Your task to perform on an android device: Open Google Chrome Image 0: 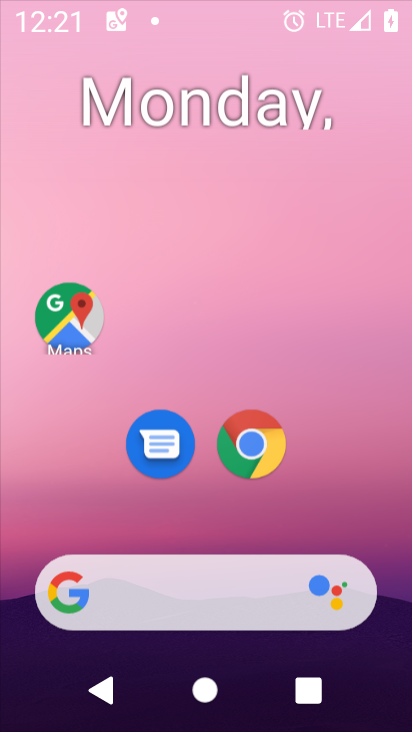
Step 0: click (279, 78)
Your task to perform on an android device: Open Google Chrome Image 1: 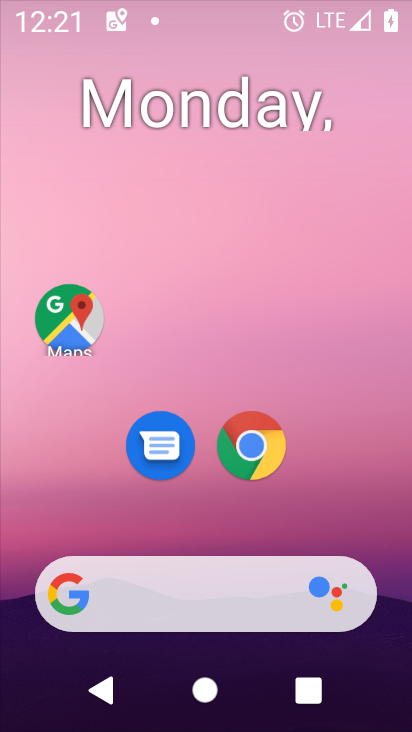
Step 1: drag from (219, 506) to (270, 108)
Your task to perform on an android device: Open Google Chrome Image 2: 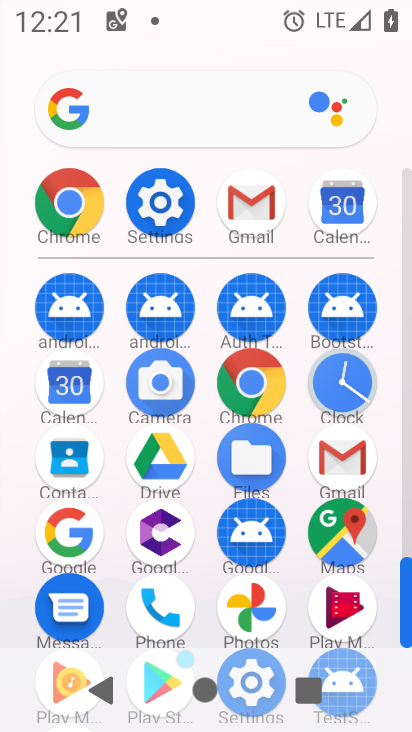
Step 2: click (68, 209)
Your task to perform on an android device: Open Google Chrome Image 3: 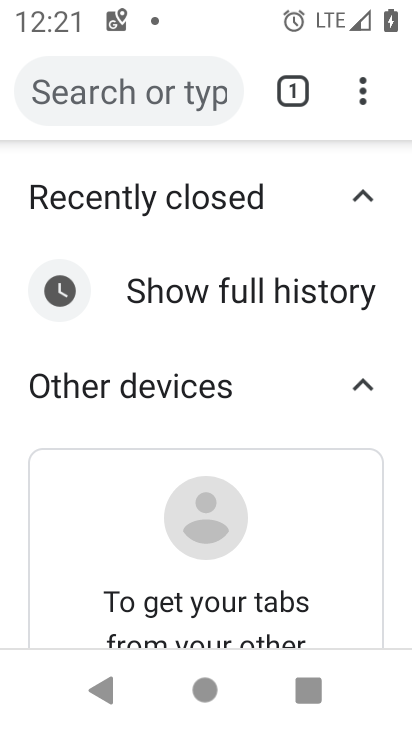
Step 3: task complete